Your task to perform on an android device: Open Google Chrome and open the bookmarks view Image 0: 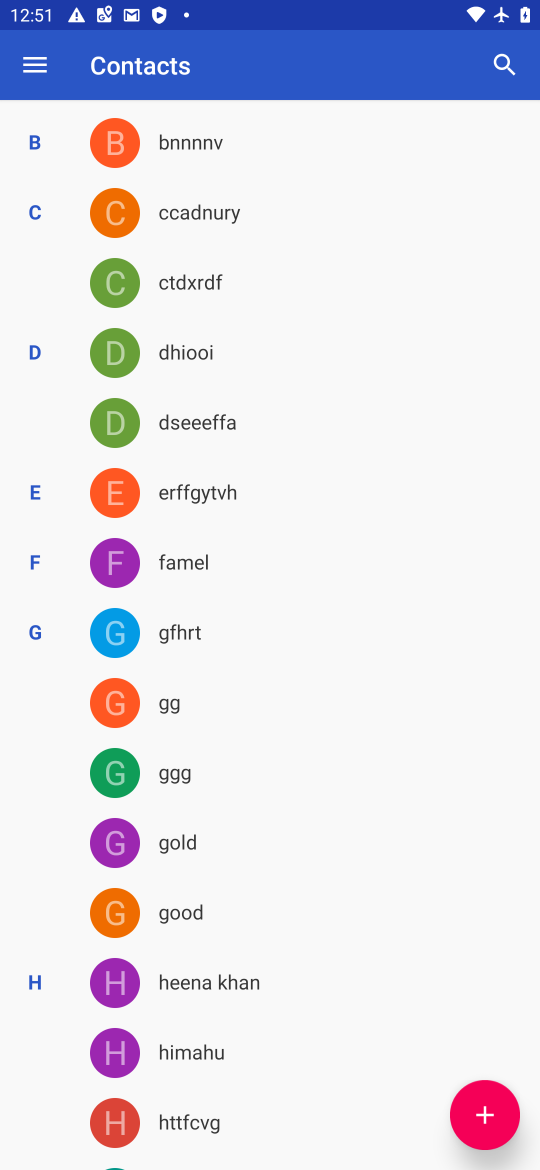
Step 0: press home button
Your task to perform on an android device: Open Google Chrome and open the bookmarks view Image 1: 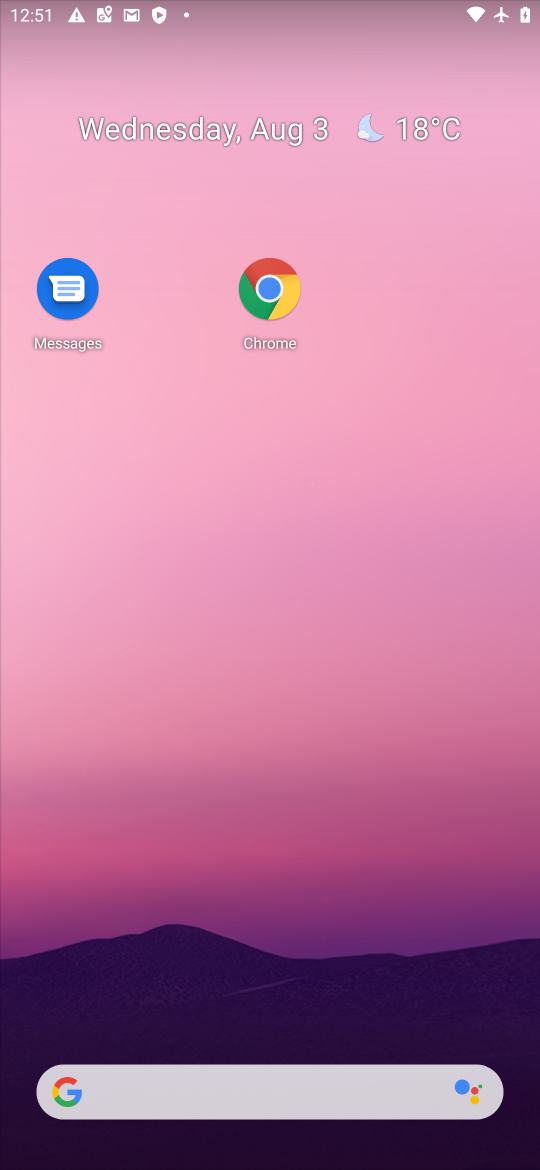
Step 1: click (293, 292)
Your task to perform on an android device: Open Google Chrome and open the bookmarks view Image 2: 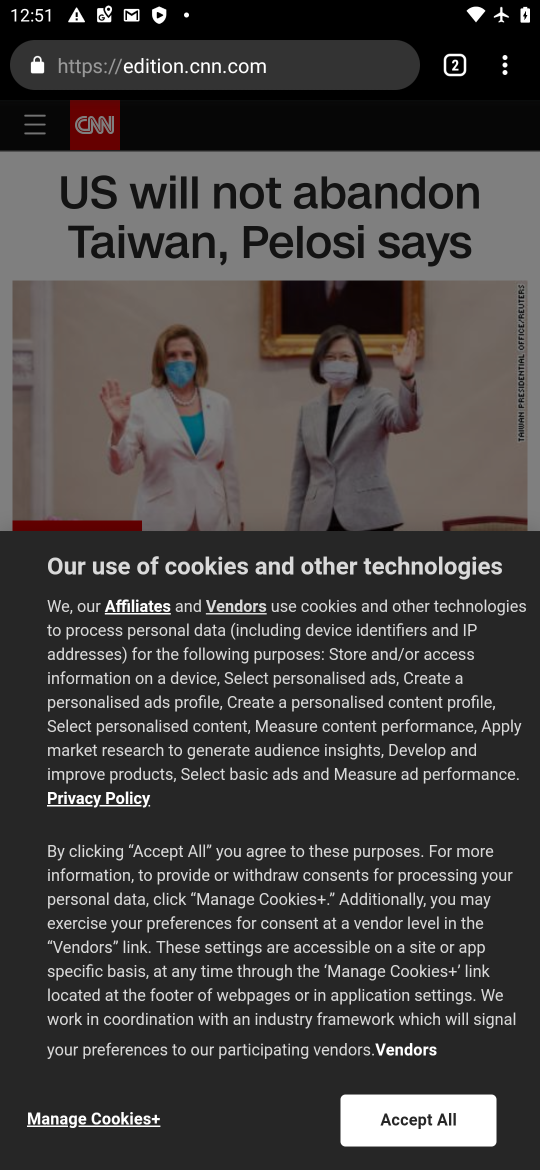
Step 2: click (499, 76)
Your task to perform on an android device: Open Google Chrome and open the bookmarks view Image 3: 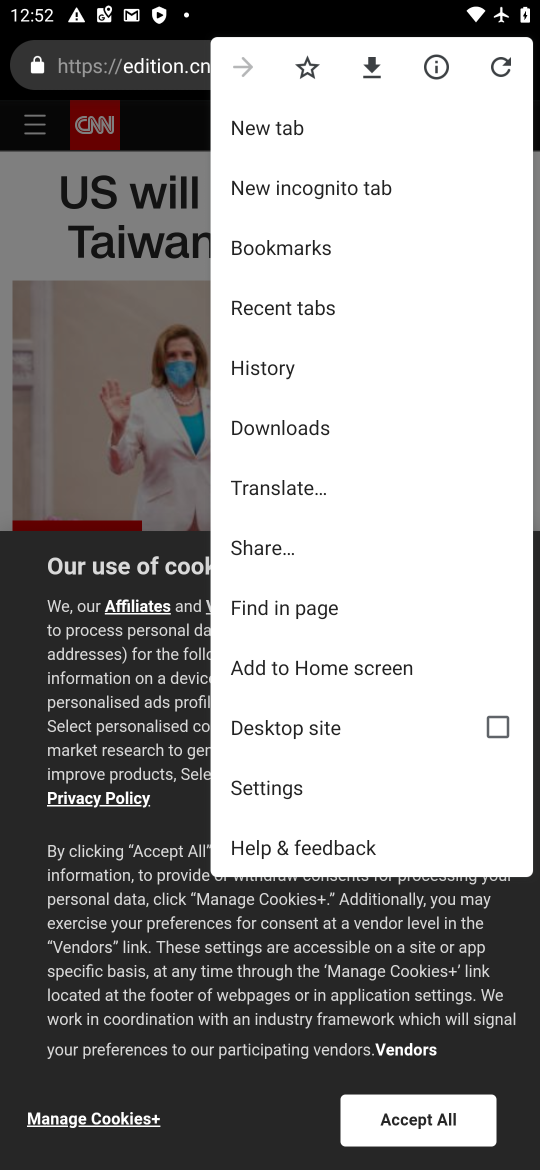
Step 3: click (322, 776)
Your task to perform on an android device: Open Google Chrome and open the bookmarks view Image 4: 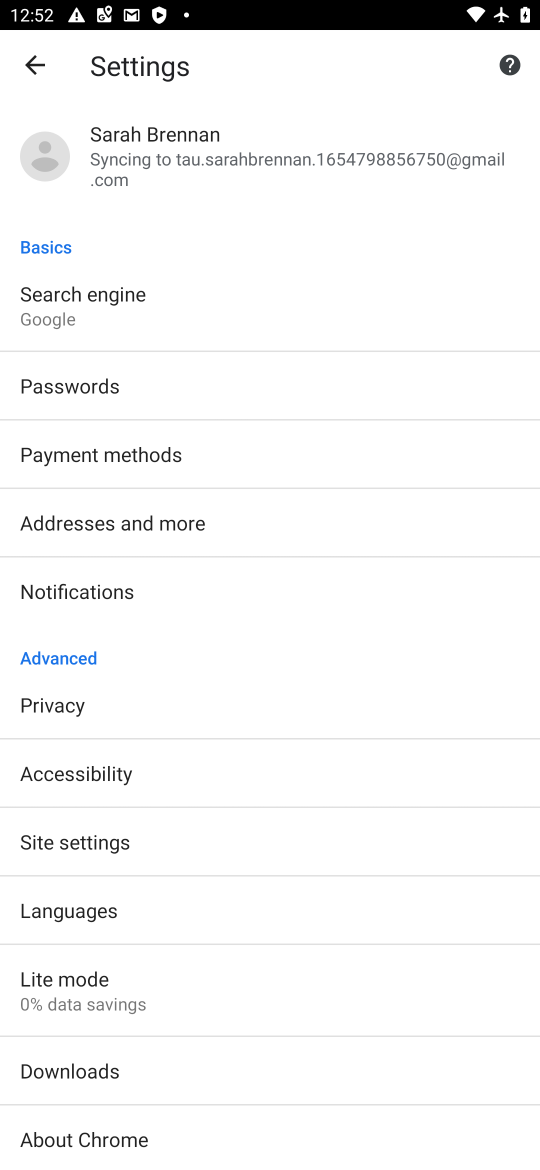
Step 4: task complete